Your task to perform on an android device: Go to location settings Image 0: 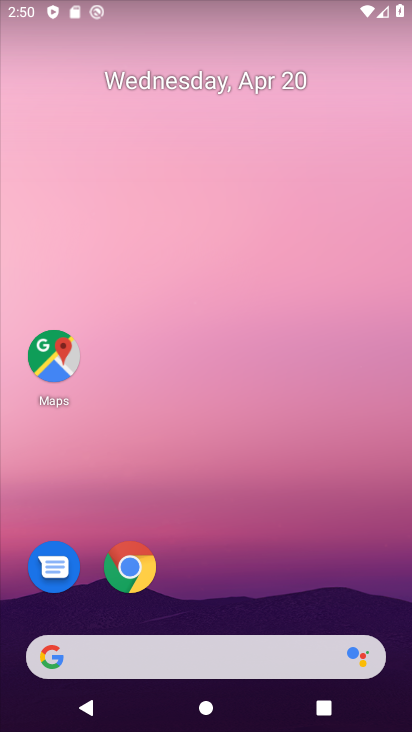
Step 0: drag from (368, 544) to (304, 41)
Your task to perform on an android device: Go to location settings Image 1: 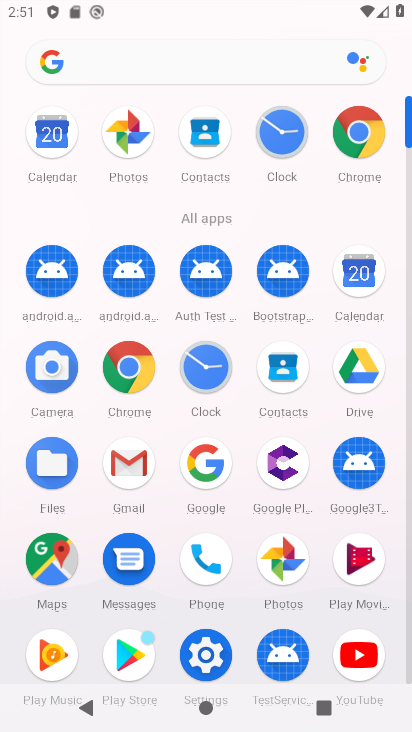
Step 1: click (208, 658)
Your task to perform on an android device: Go to location settings Image 2: 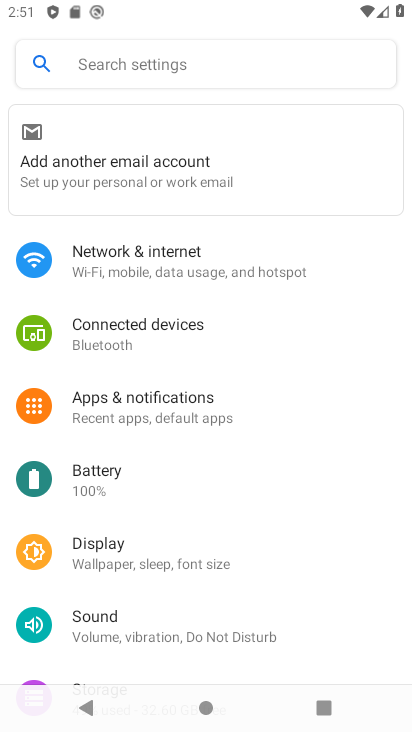
Step 2: drag from (227, 632) to (211, 369)
Your task to perform on an android device: Go to location settings Image 3: 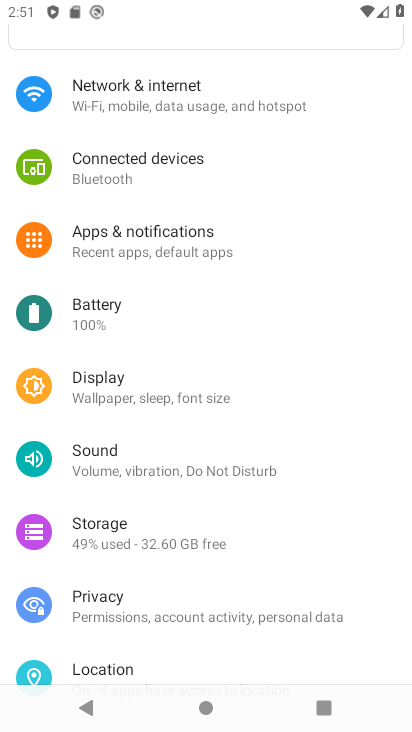
Step 3: drag from (229, 636) to (230, 383)
Your task to perform on an android device: Go to location settings Image 4: 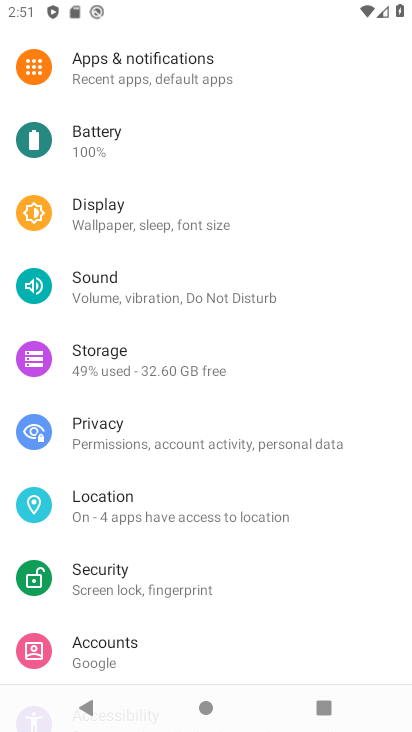
Step 4: click (247, 527)
Your task to perform on an android device: Go to location settings Image 5: 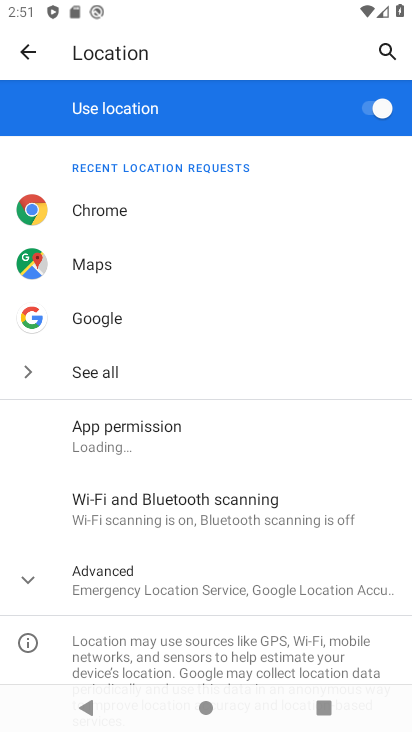
Step 5: click (258, 590)
Your task to perform on an android device: Go to location settings Image 6: 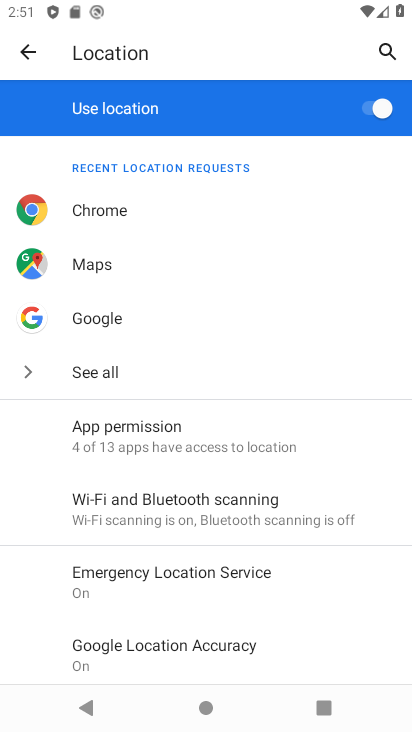
Step 6: task complete